Your task to perform on an android device: Show the shopping cart on costco. Search for "logitech g pro" on costco, select the first entry, and add it to the cart. Image 0: 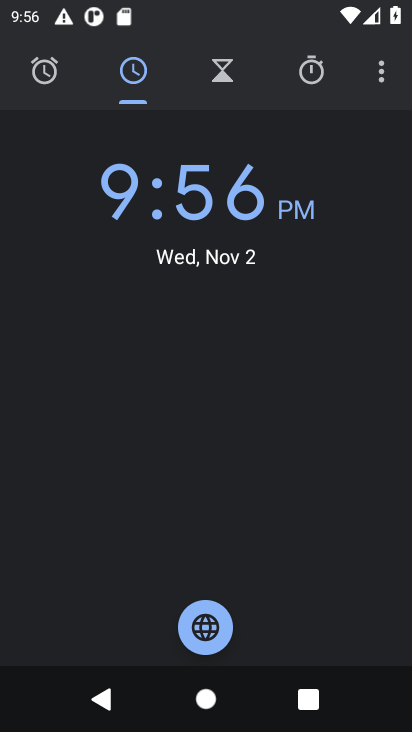
Step 0: press home button
Your task to perform on an android device: Show the shopping cart on costco. Search for "logitech g pro" on costco, select the first entry, and add it to the cart. Image 1: 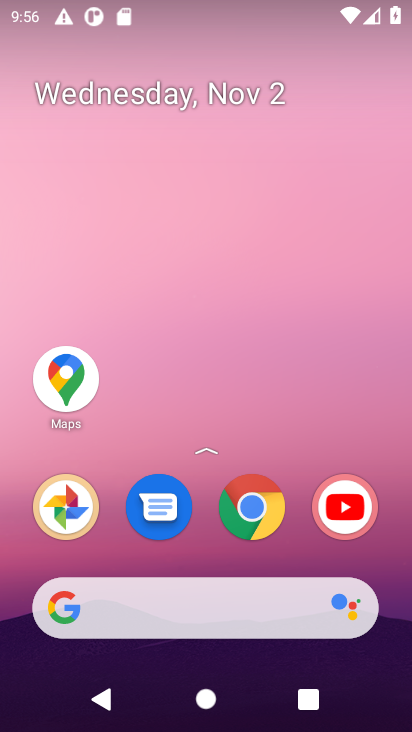
Step 1: click (234, 619)
Your task to perform on an android device: Show the shopping cart on costco. Search for "logitech g pro" on costco, select the first entry, and add it to the cart. Image 2: 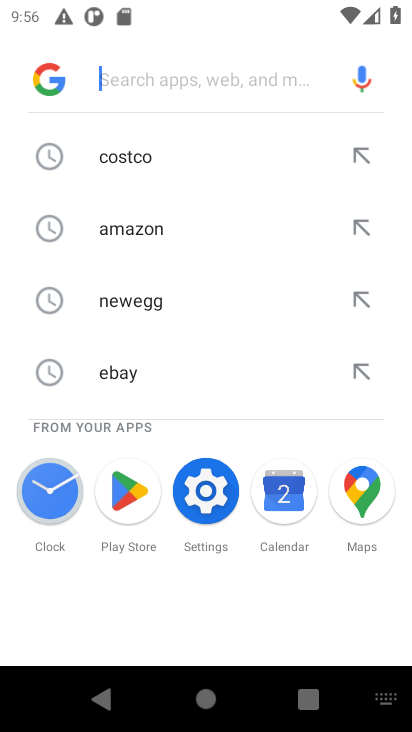
Step 2: click (159, 173)
Your task to perform on an android device: Show the shopping cart on costco. Search for "logitech g pro" on costco, select the first entry, and add it to the cart. Image 3: 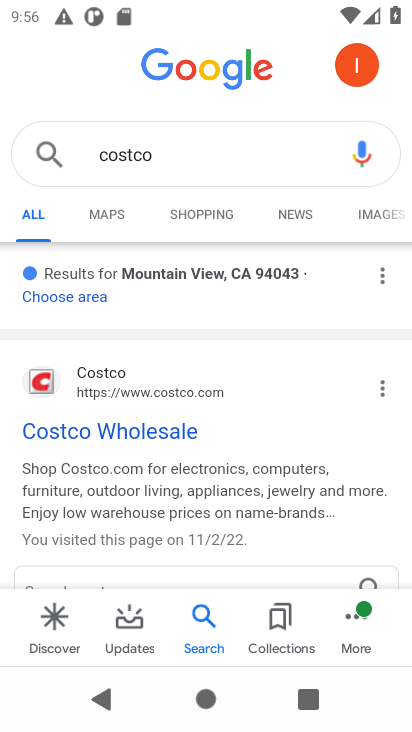
Step 3: click (130, 431)
Your task to perform on an android device: Show the shopping cart on costco. Search for "logitech g pro" on costco, select the first entry, and add it to the cart. Image 4: 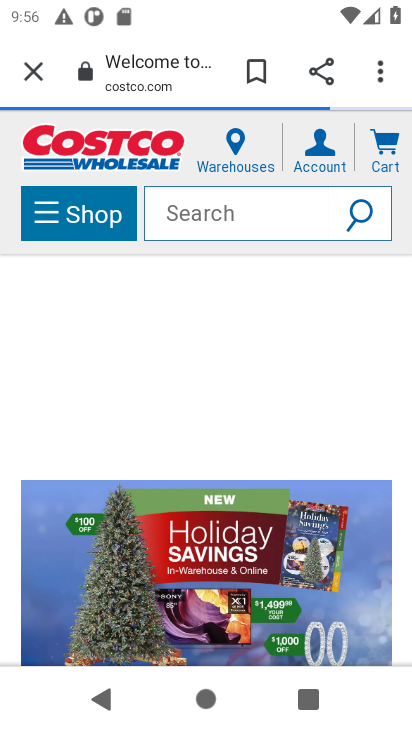
Step 4: click (170, 213)
Your task to perform on an android device: Show the shopping cart on costco. Search for "logitech g pro" on costco, select the first entry, and add it to the cart. Image 5: 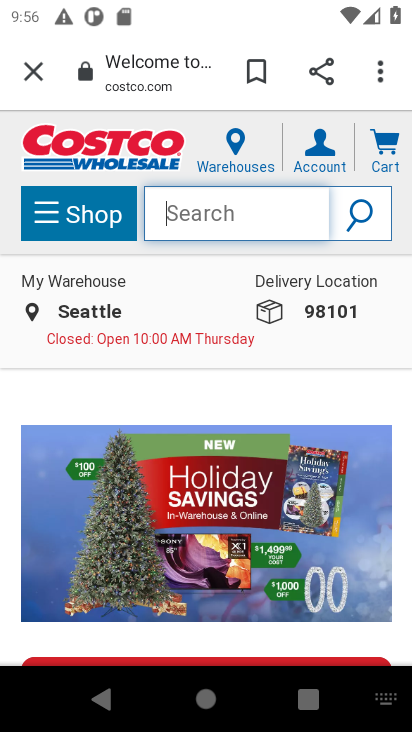
Step 5: click (196, 222)
Your task to perform on an android device: Show the shopping cart on costco. Search for "logitech g pro" on costco, select the first entry, and add it to the cart. Image 6: 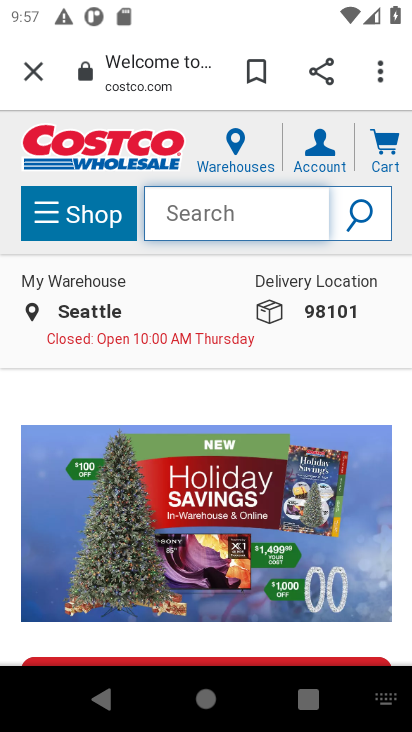
Step 6: type "logitech gpro"
Your task to perform on an android device: Show the shopping cart on costco. Search for "logitech g pro" on costco, select the first entry, and add it to the cart. Image 7: 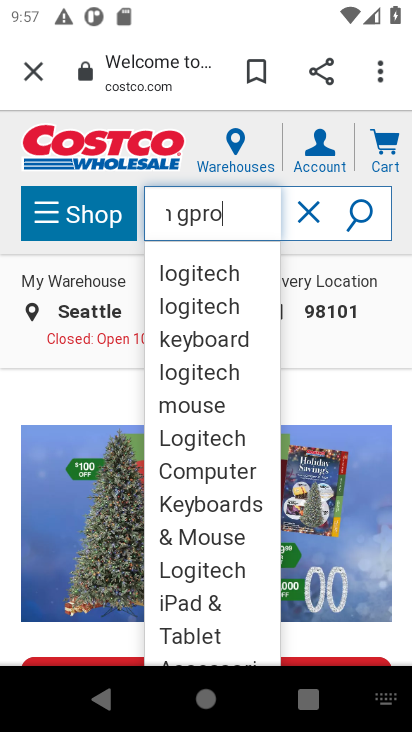
Step 7: click (187, 267)
Your task to perform on an android device: Show the shopping cart on costco. Search for "logitech g pro" on costco, select the first entry, and add it to the cart. Image 8: 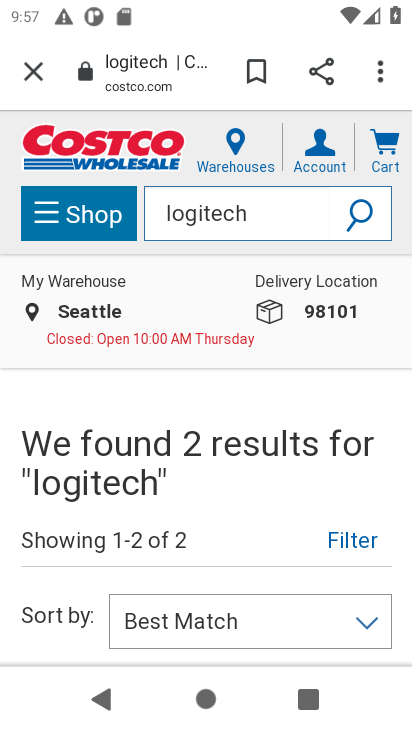
Step 8: task complete